Your task to perform on an android device: Open privacy settings Image 0: 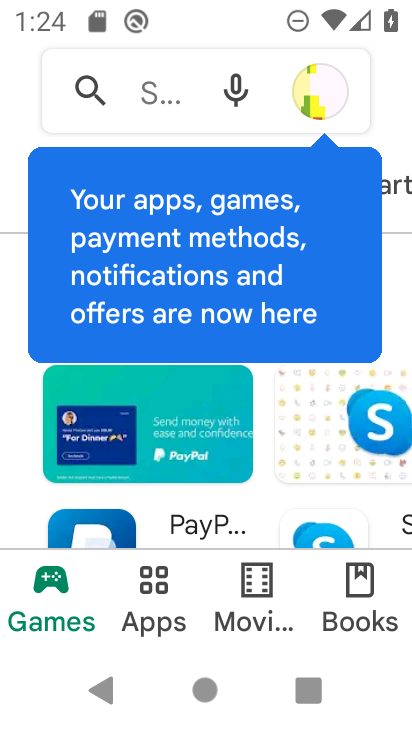
Step 0: press home button
Your task to perform on an android device: Open privacy settings Image 1: 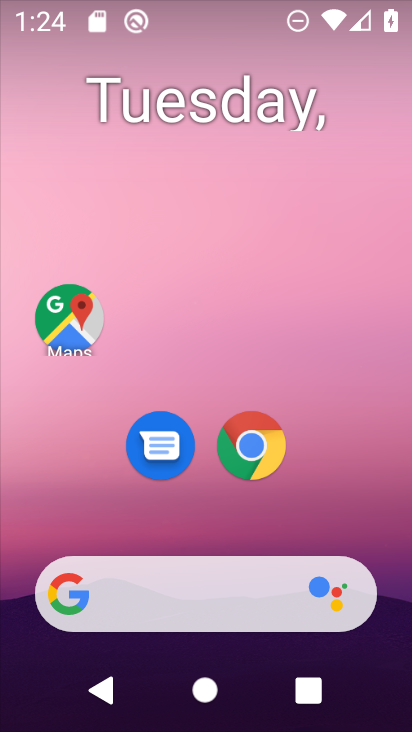
Step 1: drag from (256, 529) to (260, 236)
Your task to perform on an android device: Open privacy settings Image 2: 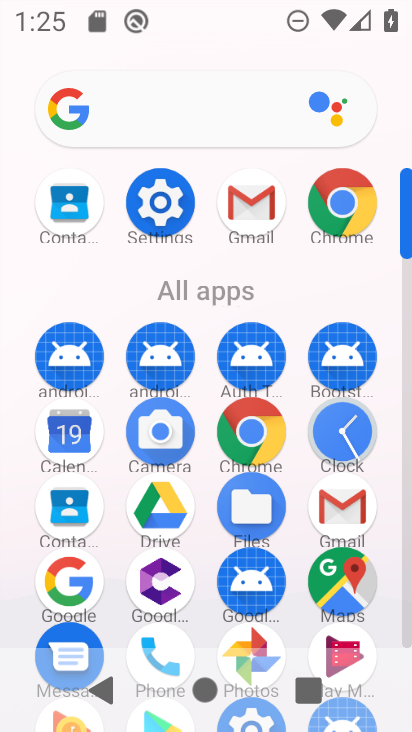
Step 2: click (162, 203)
Your task to perform on an android device: Open privacy settings Image 3: 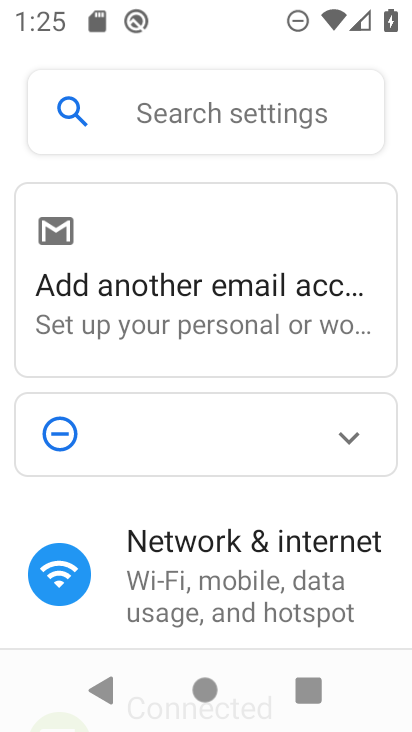
Step 3: drag from (227, 512) to (266, 196)
Your task to perform on an android device: Open privacy settings Image 4: 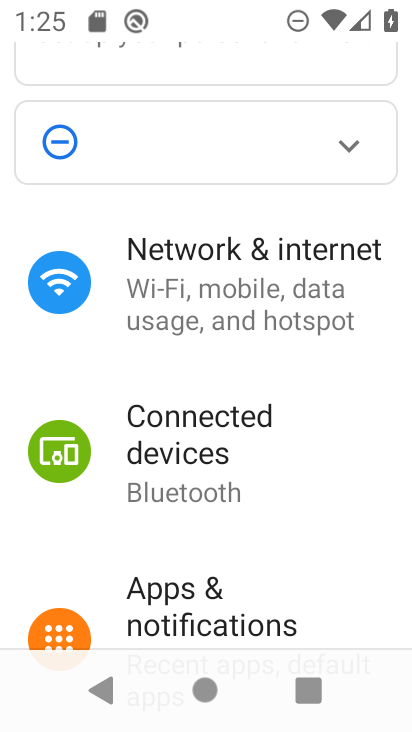
Step 4: drag from (229, 576) to (291, 254)
Your task to perform on an android device: Open privacy settings Image 5: 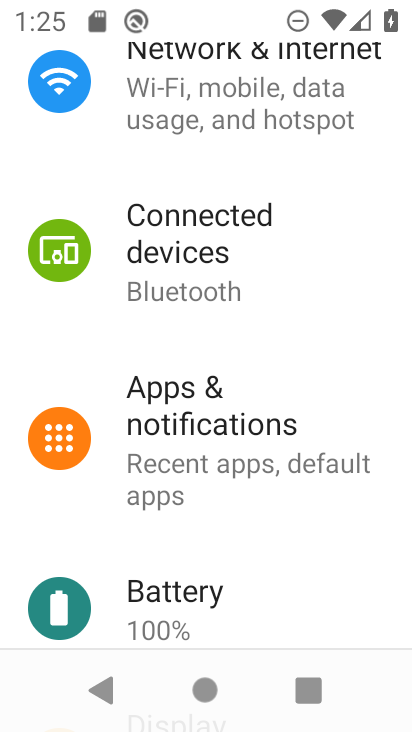
Step 5: drag from (227, 585) to (267, 291)
Your task to perform on an android device: Open privacy settings Image 6: 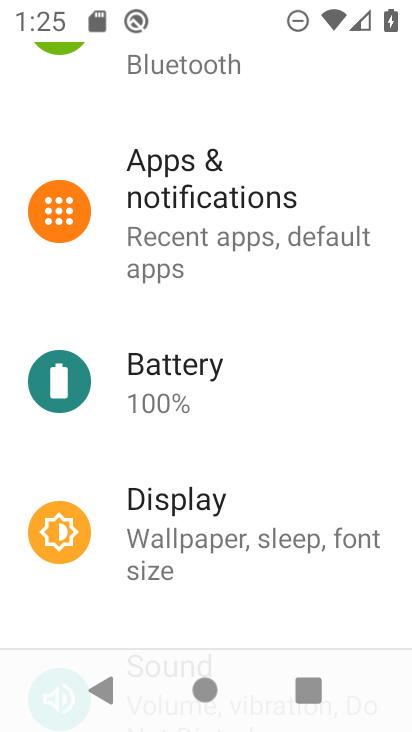
Step 6: drag from (205, 579) to (244, 260)
Your task to perform on an android device: Open privacy settings Image 7: 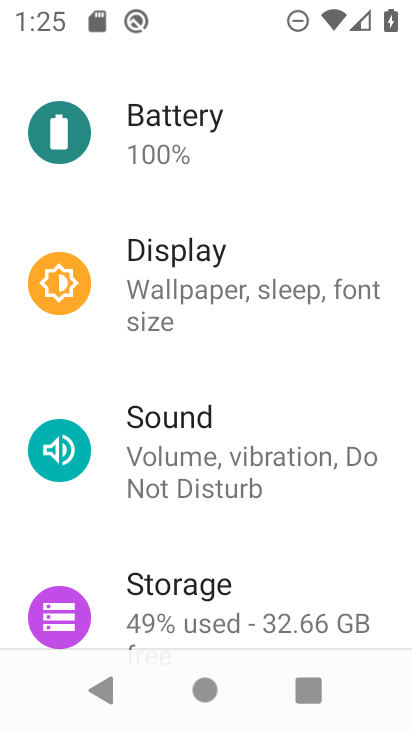
Step 7: drag from (237, 562) to (256, 236)
Your task to perform on an android device: Open privacy settings Image 8: 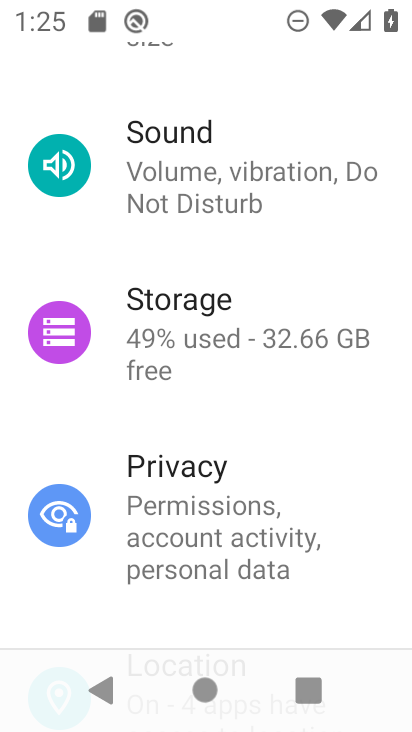
Step 8: click (242, 501)
Your task to perform on an android device: Open privacy settings Image 9: 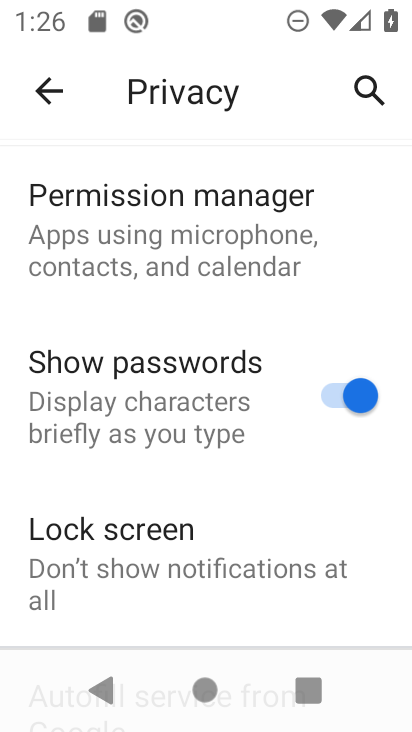
Step 9: task complete